Your task to perform on an android device: Open the phone app and click the voicemail tab. Image 0: 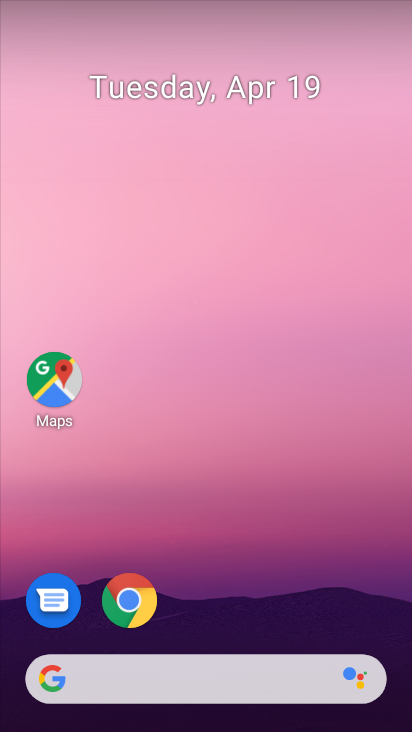
Step 0: drag from (212, 567) to (204, 147)
Your task to perform on an android device: Open the phone app and click the voicemail tab. Image 1: 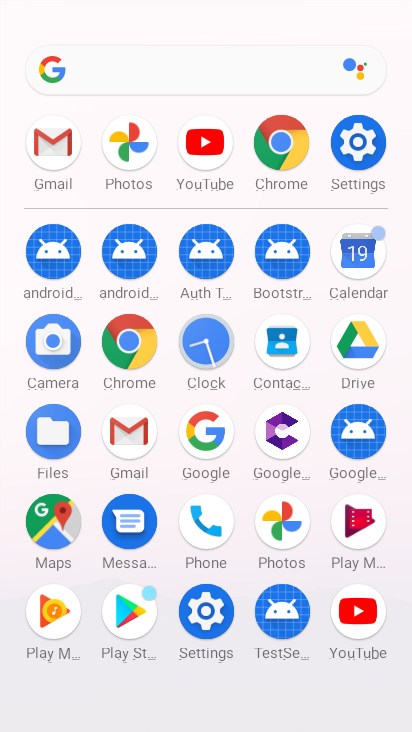
Step 1: click (213, 522)
Your task to perform on an android device: Open the phone app and click the voicemail tab. Image 2: 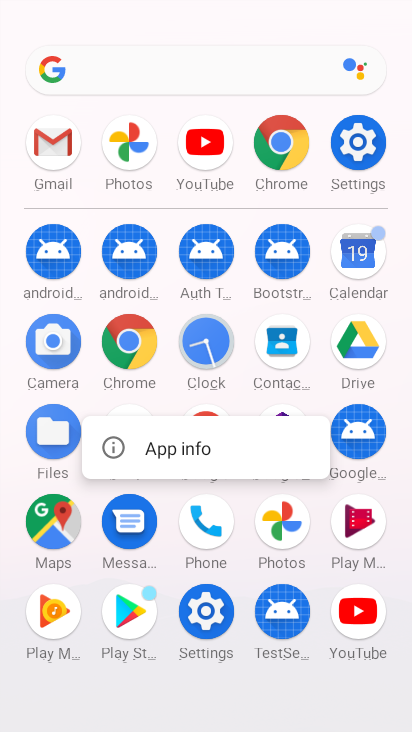
Step 2: click (211, 530)
Your task to perform on an android device: Open the phone app and click the voicemail tab. Image 3: 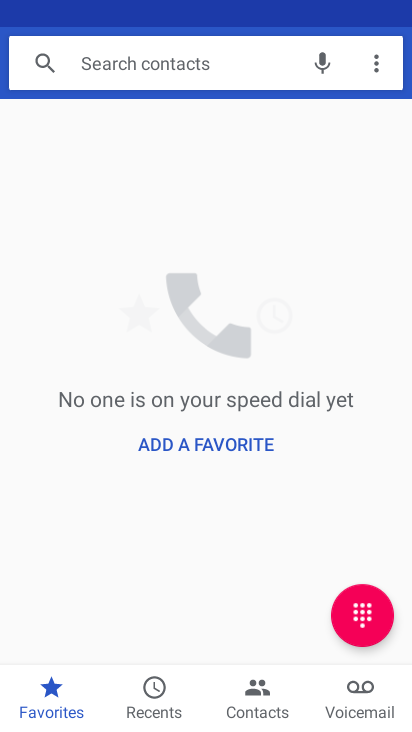
Step 3: click (363, 686)
Your task to perform on an android device: Open the phone app and click the voicemail tab. Image 4: 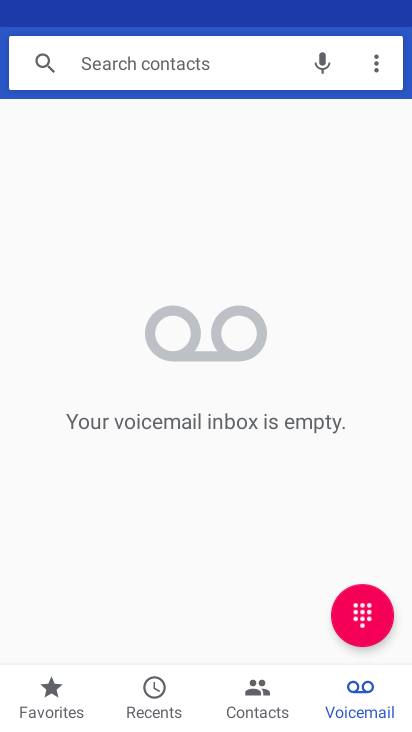
Step 4: task complete